Your task to perform on an android device: Open maps Image 0: 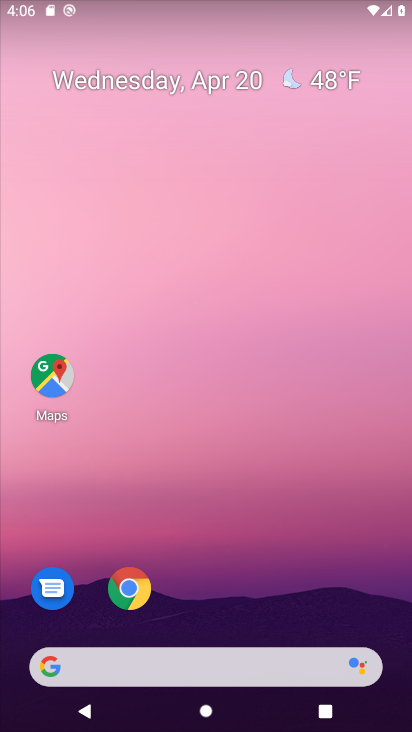
Step 0: drag from (315, 598) to (322, 205)
Your task to perform on an android device: Open maps Image 1: 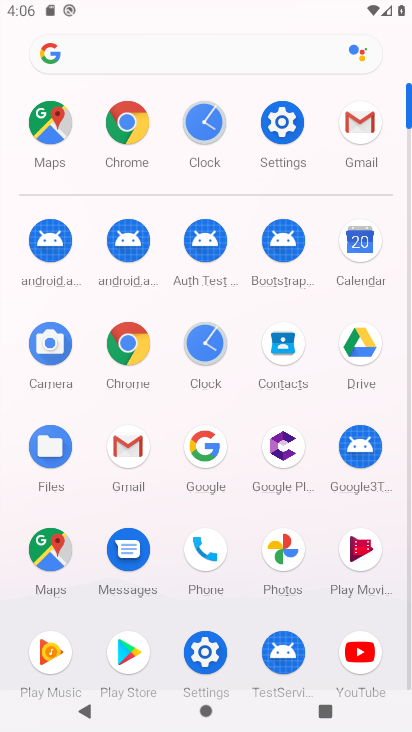
Step 1: click (41, 558)
Your task to perform on an android device: Open maps Image 2: 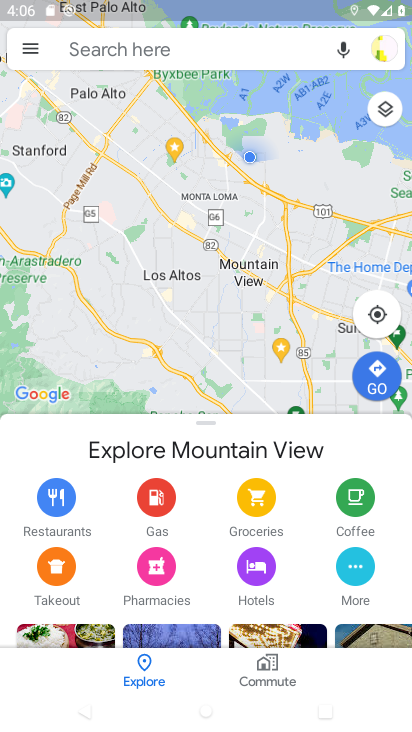
Step 2: task complete